Your task to perform on an android device: open sync settings in chrome Image 0: 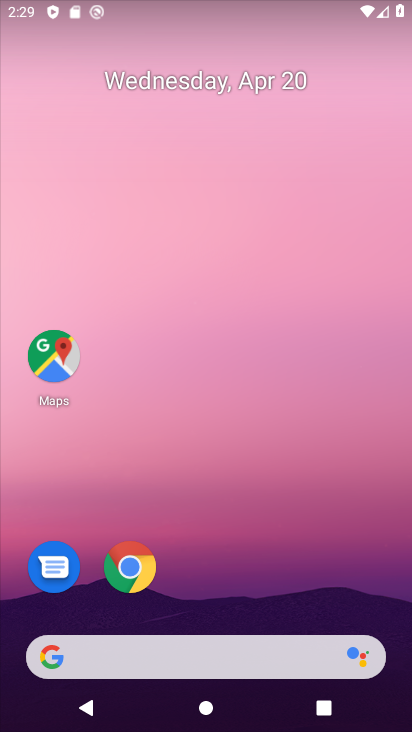
Step 0: click (124, 563)
Your task to perform on an android device: open sync settings in chrome Image 1: 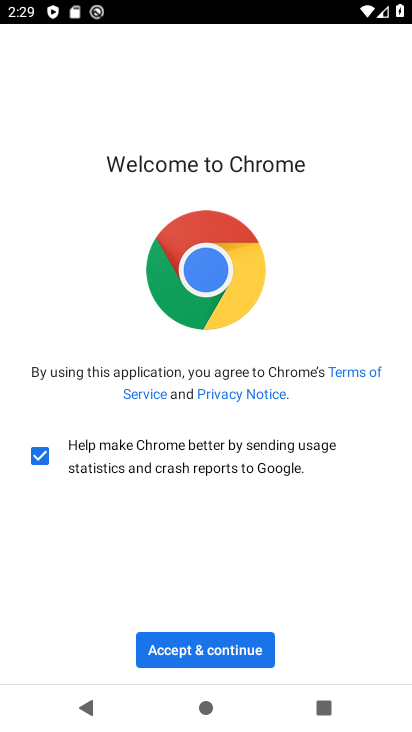
Step 1: click (206, 654)
Your task to perform on an android device: open sync settings in chrome Image 2: 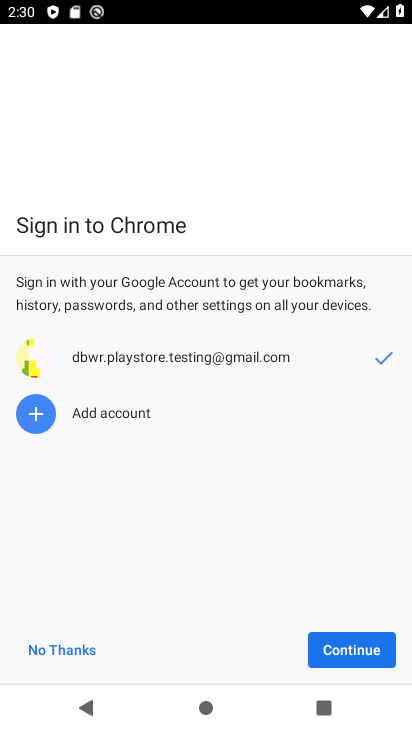
Step 2: click (340, 649)
Your task to perform on an android device: open sync settings in chrome Image 3: 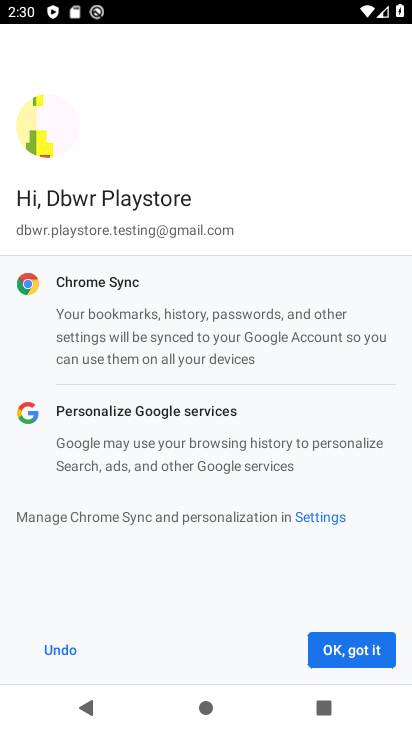
Step 3: click (340, 649)
Your task to perform on an android device: open sync settings in chrome Image 4: 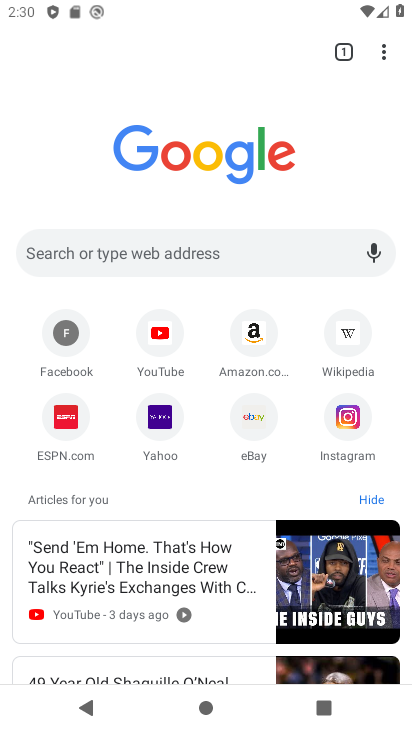
Step 4: click (388, 50)
Your task to perform on an android device: open sync settings in chrome Image 5: 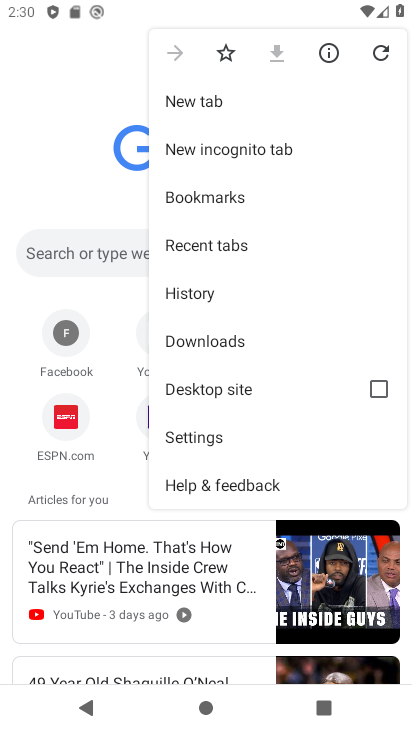
Step 5: click (186, 433)
Your task to perform on an android device: open sync settings in chrome Image 6: 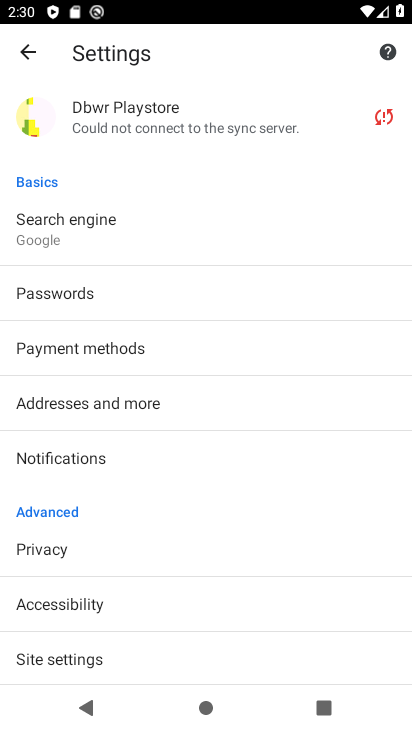
Step 6: drag from (83, 428) to (112, 252)
Your task to perform on an android device: open sync settings in chrome Image 7: 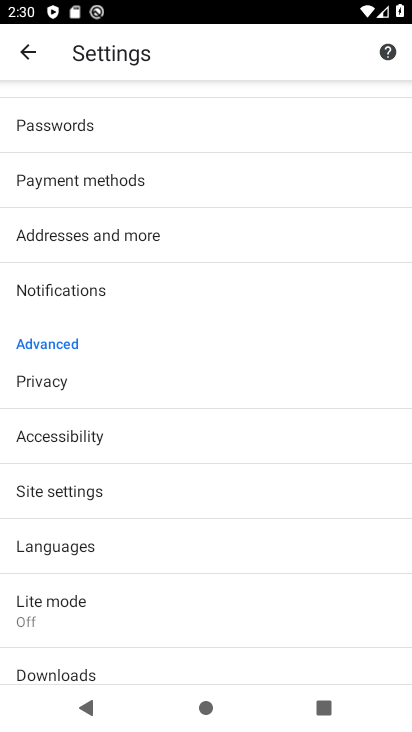
Step 7: drag from (134, 246) to (79, 624)
Your task to perform on an android device: open sync settings in chrome Image 8: 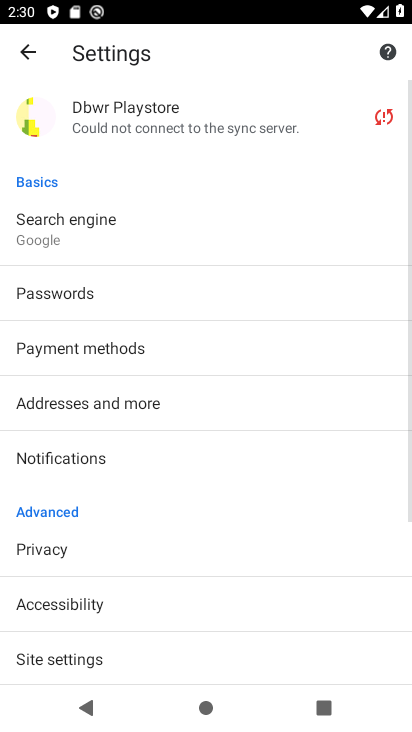
Step 8: click (188, 127)
Your task to perform on an android device: open sync settings in chrome Image 9: 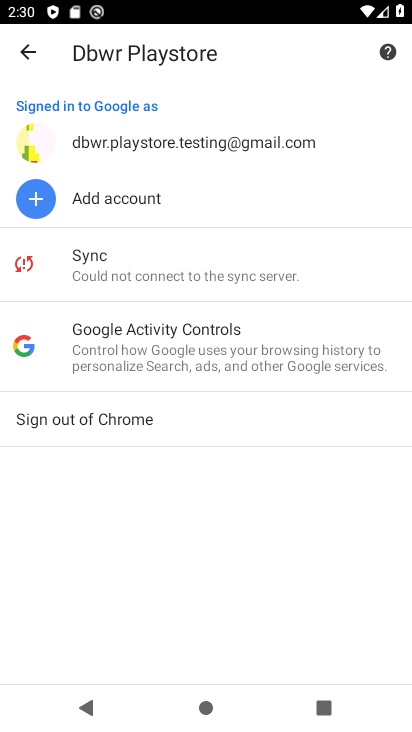
Step 9: click (173, 268)
Your task to perform on an android device: open sync settings in chrome Image 10: 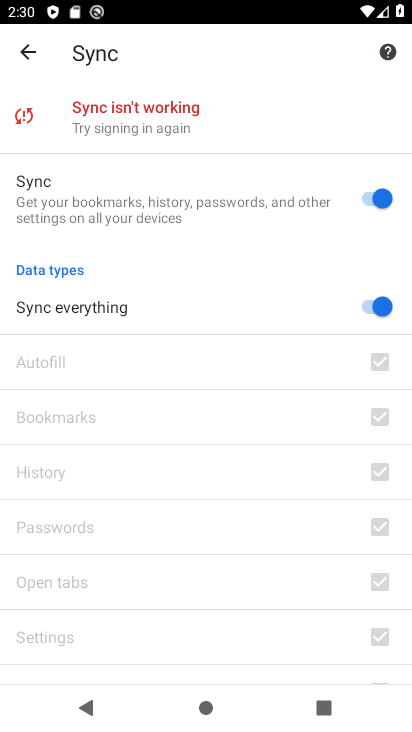
Step 10: task complete